Your task to perform on an android device: move an email to a new category in the gmail app Image 0: 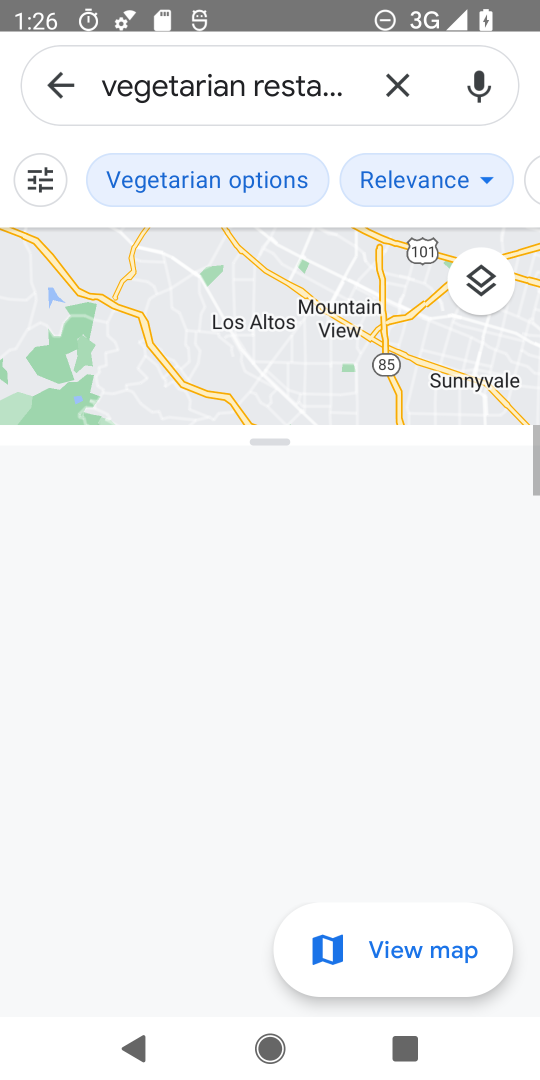
Step 0: press home button
Your task to perform on an android device: move an email to a new category in the gmail app Image 1: 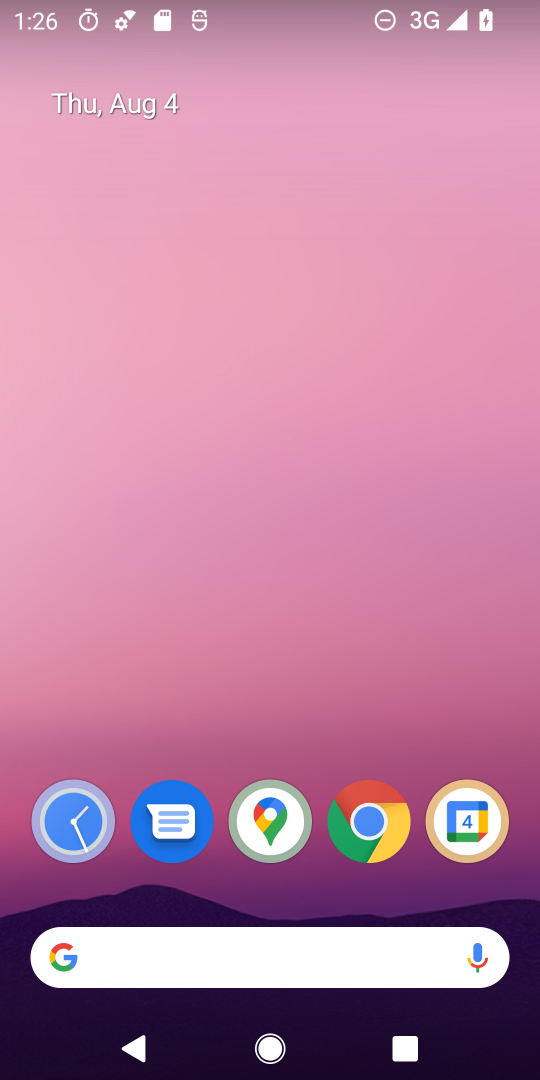
Step 1: drag from (505, 909) to (232, 65)
Your task to perform on an android device: move an email to a new category in the gmail app Image 2: 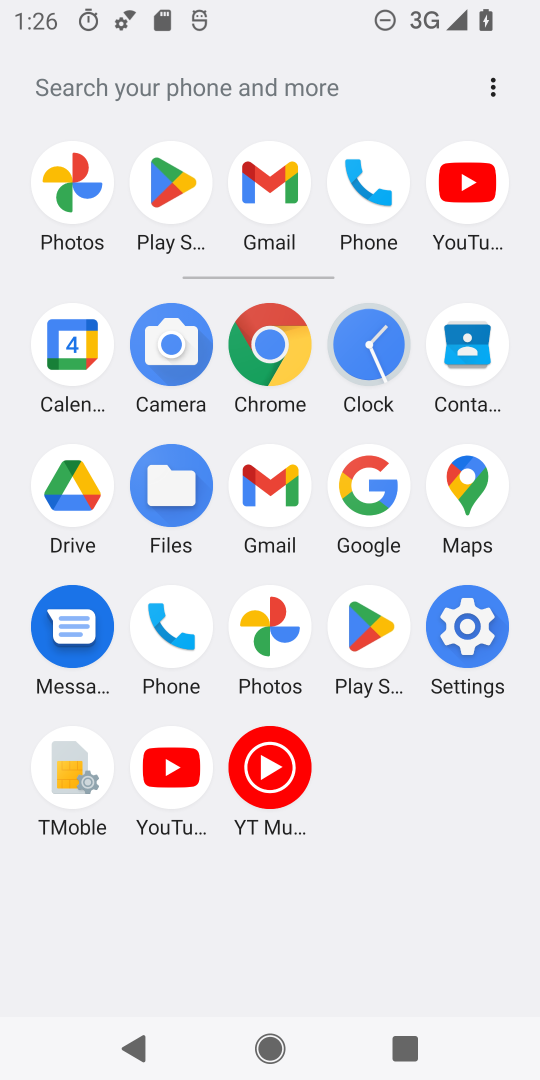
Step 2: click (271, 504)
Your task to perform on an android device: move an email to a new category in the gmail app Image 3: 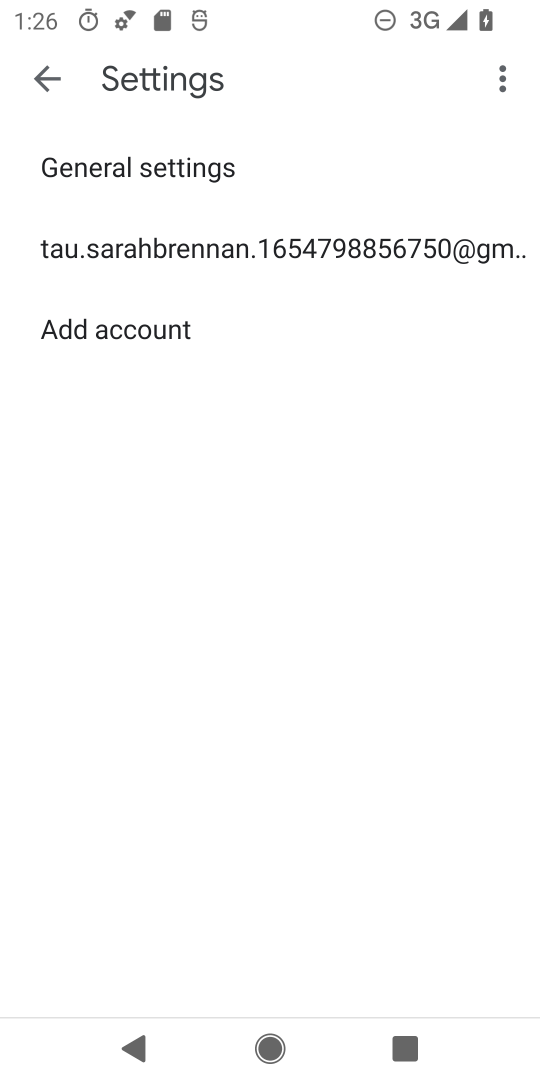
Step 3: task complete